Your task to perform on an android device: all mails in gmail Image 0: 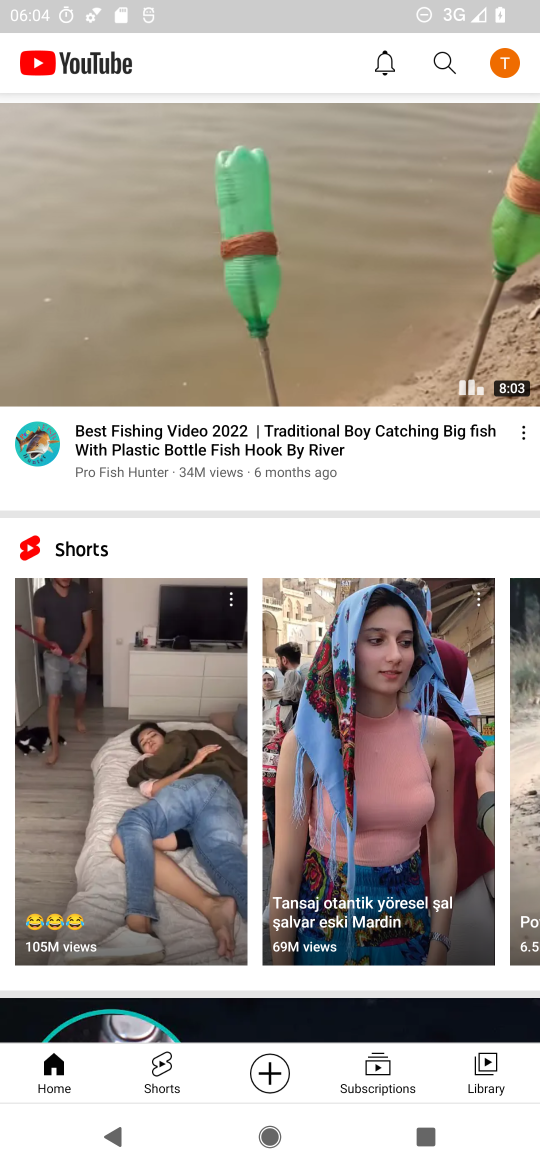
Step 0: press home button
Your task to perform on an android device: all mails in gmail Image 1: 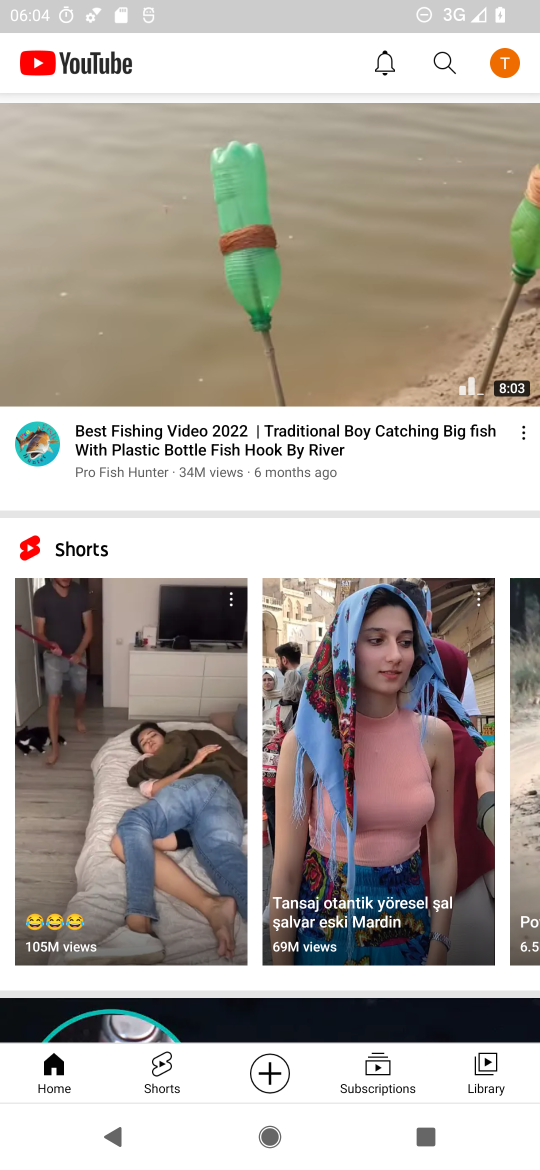
Step 1: press home button
Your task to perform on an android device: all mails in gmail Image 2: 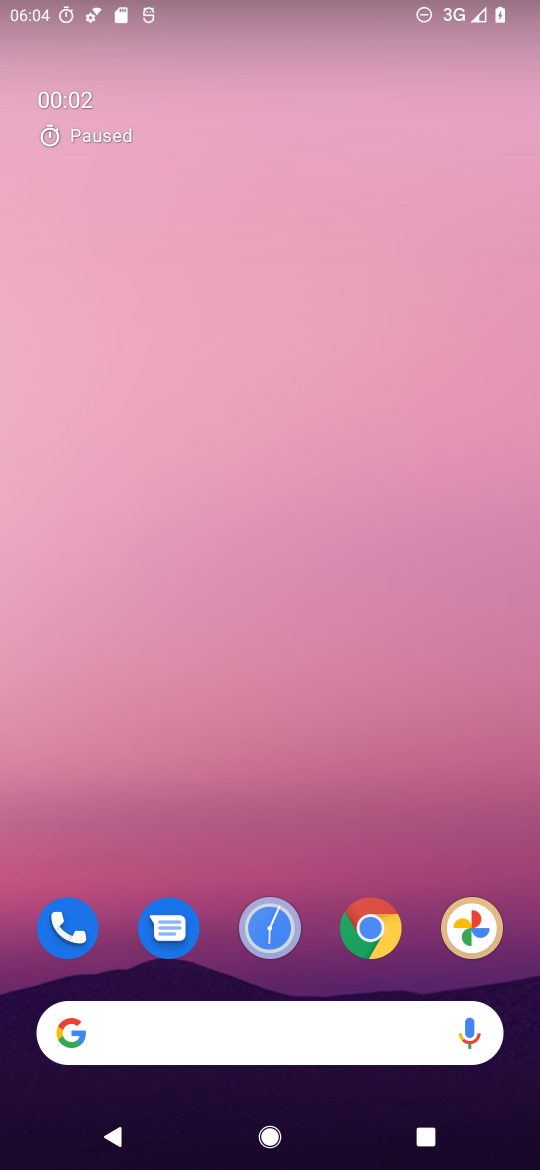
Step 2: drag from (395, 755) to (430, 0)
Your task to perform on an android device: all mails in gmail Image 3: 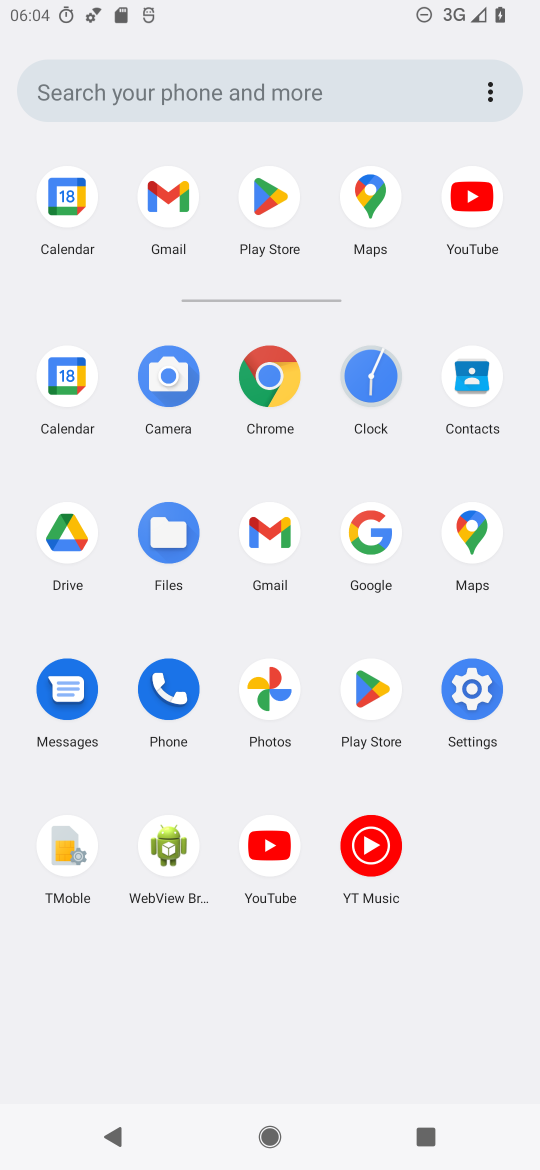
Step 3: click (273, 533)
Your task to perform on an android device: all mails in gmail Image 4: 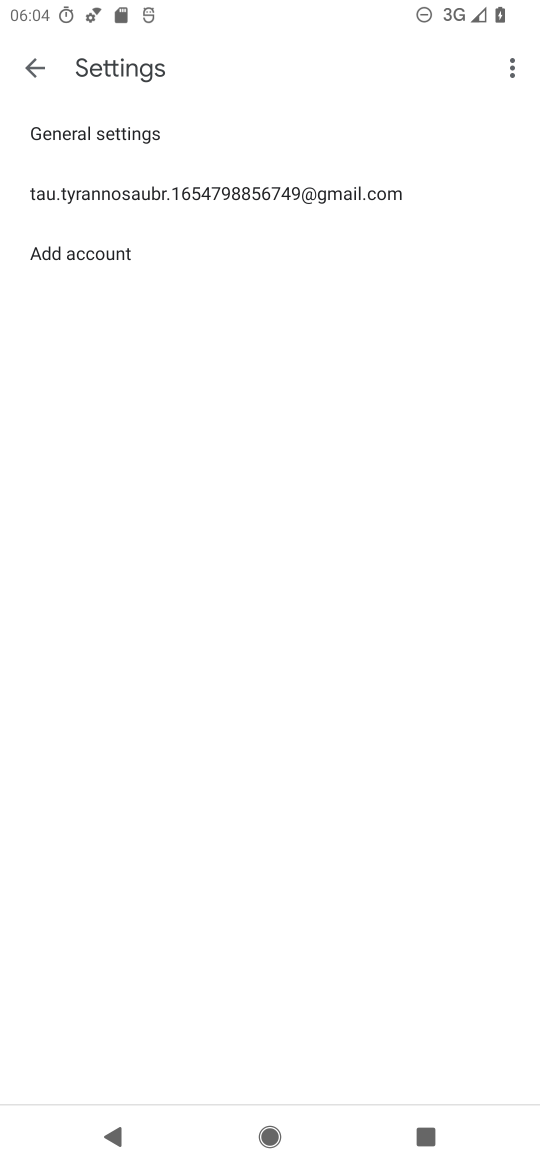
Step 4: click (157, 197)
Your task to perform on an android device: all mails in gmail Image 5: 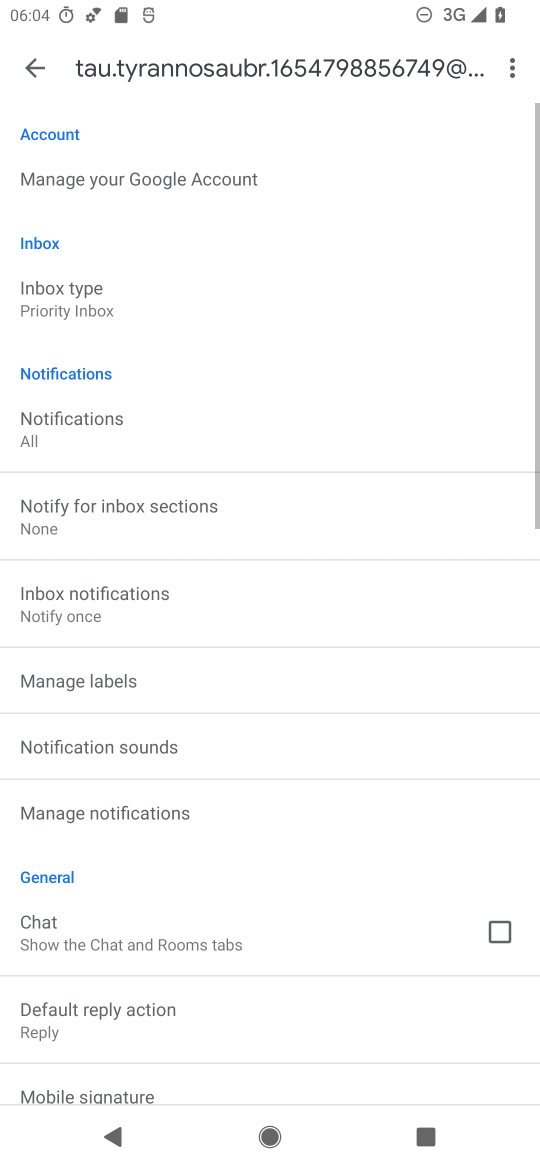
Step 5: drag from (185, 227) to (312, 644)
Your task to perform on an android device: all mails in gmail Image 6: 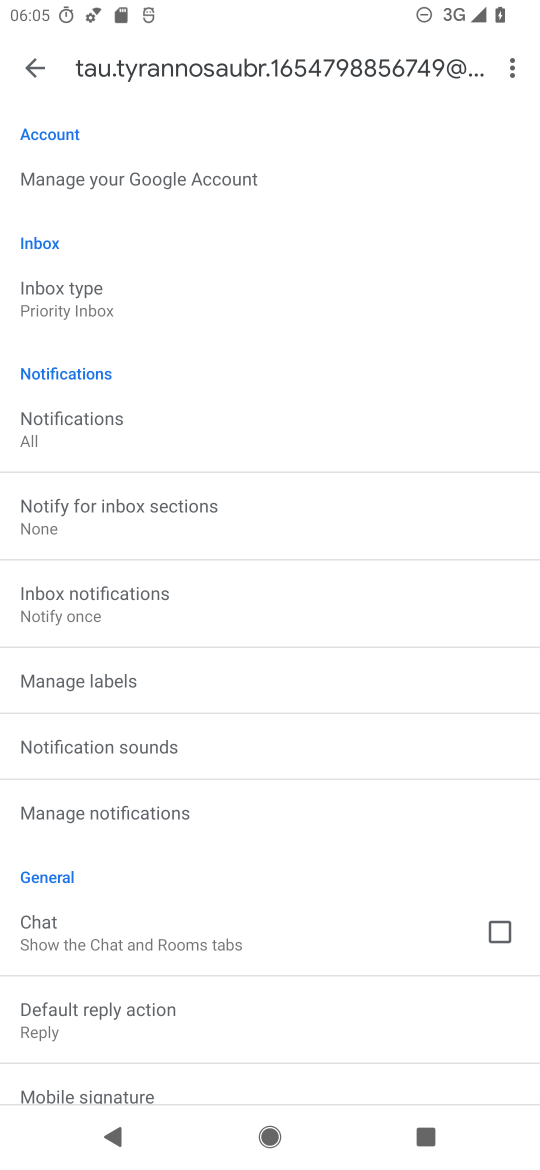
Step 6: click (21, 56)
Your task to perform on an android device: all mails in gmail Image 7: 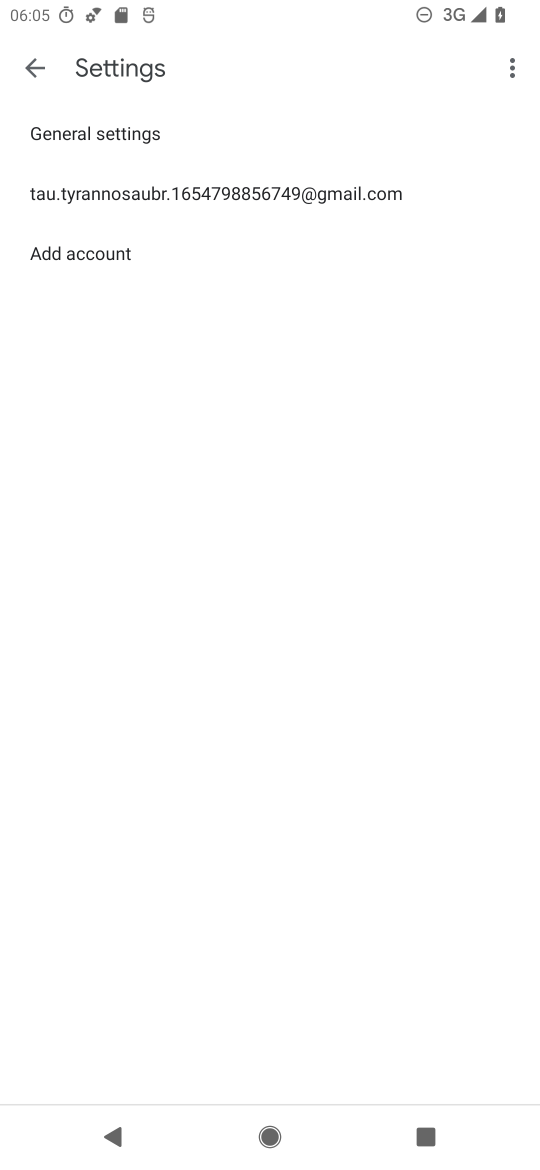
Step 7: click (25, 56)
Your task to perform on an android device: all mails in gmail Image 8: 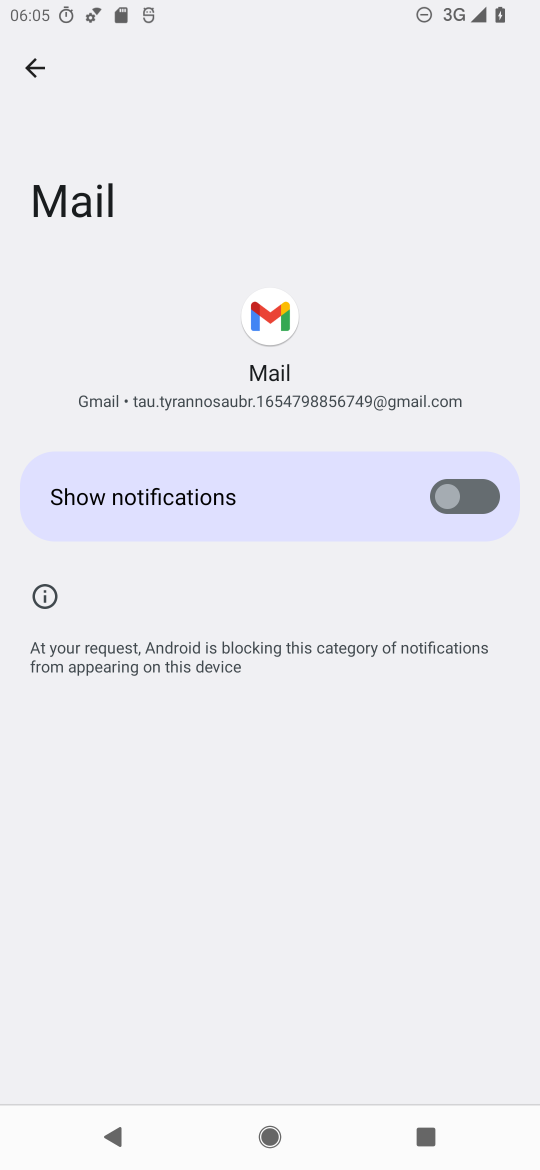
Step 8: click (32, 69)
Your task to perform on an android device: all mails in gmail Image 9: 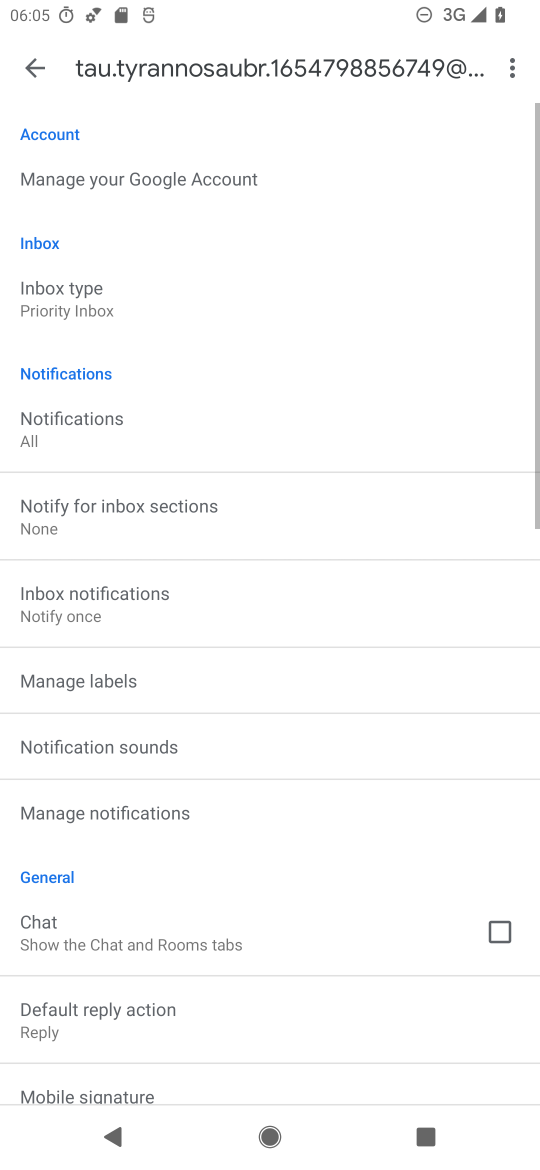
Step 9: click (32, 69)
Your task to perform on an android device: all mails in gmail Image 10: 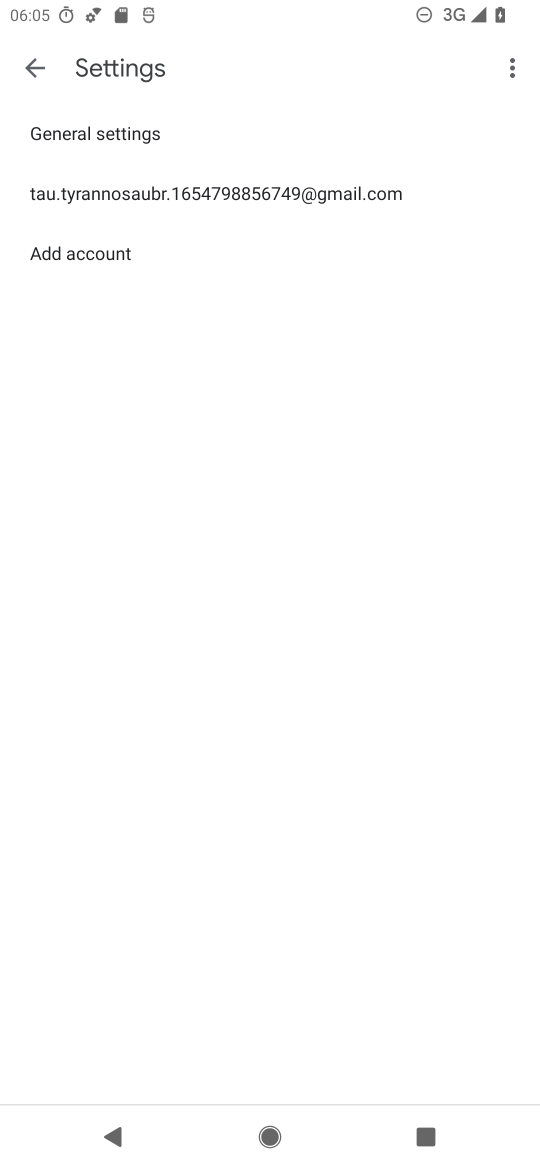
Step 10: click (32, 69)
Your task to perform on an android device: all mails in gmail Image 11: 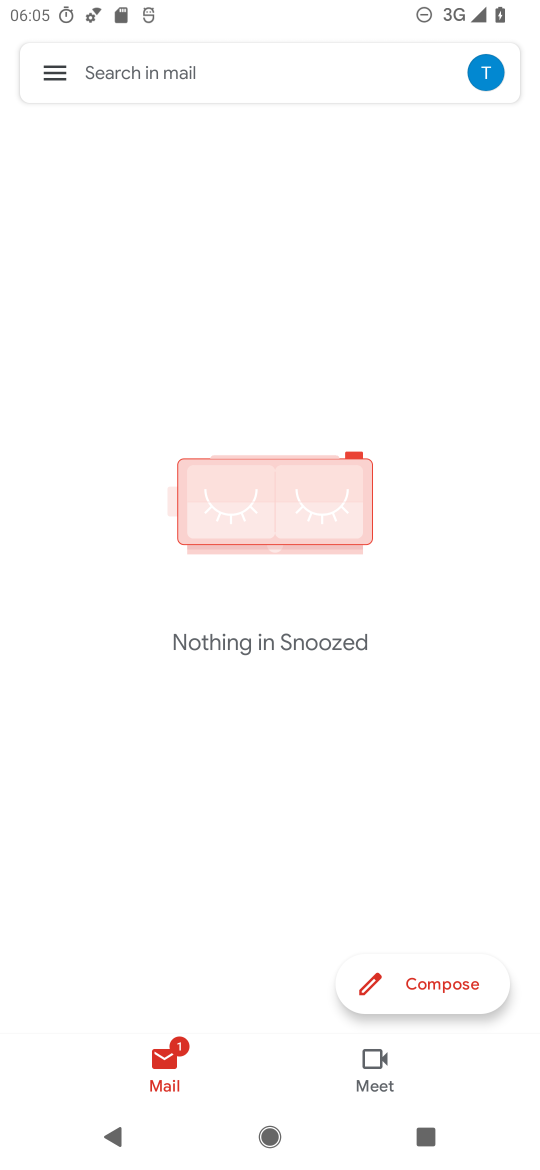
Step 11: click (32, 69)
Your task to perform on an android device: all mails in gmail Image 12: 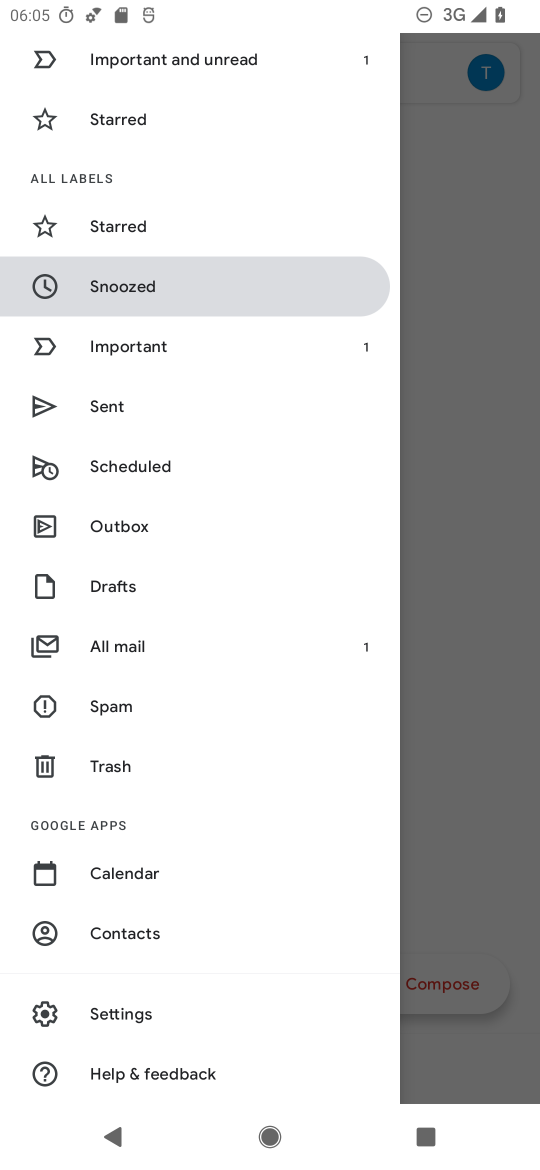
Step 12: click (142, 647)
Your task to perform on an android device: all mails in gmail Image 13: 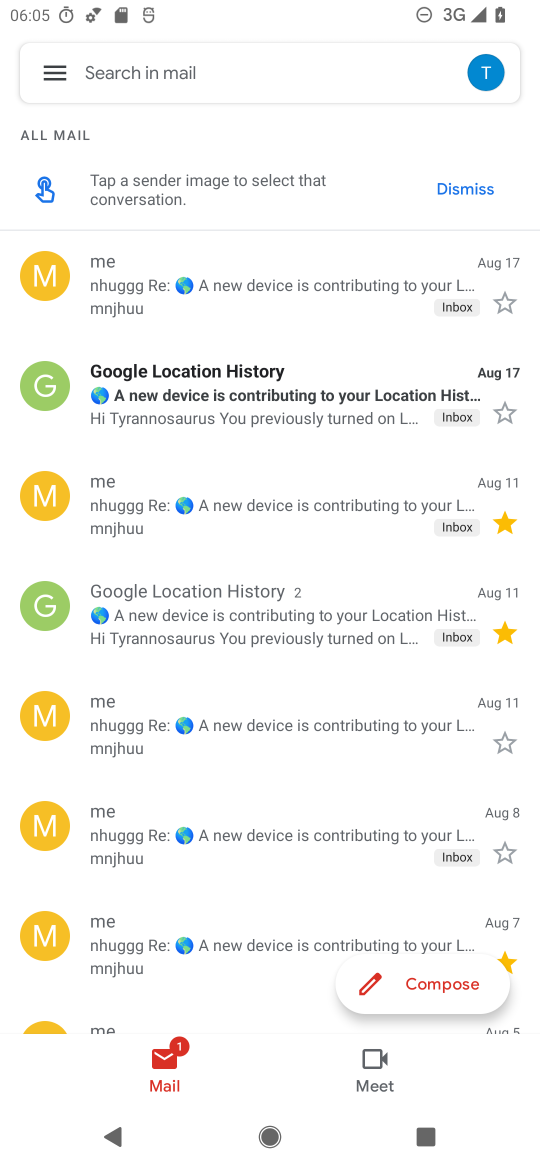
Step 13: task complete